Your task to perform on an android device: turn off smart reply in the gmail app Image 0: 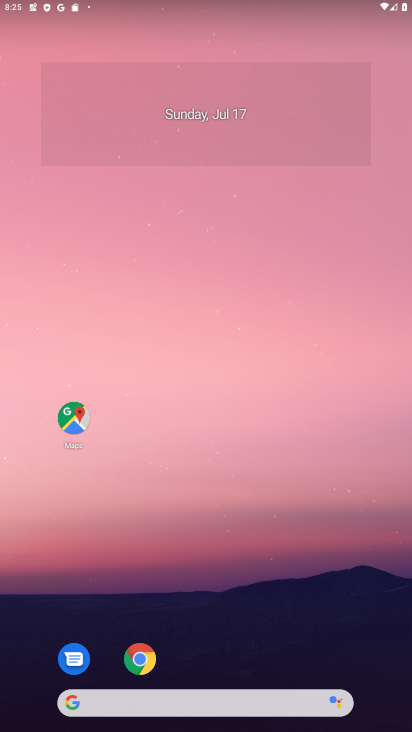
Step 0: drag from (225, 578) to (240, 163)
Your task to perform on an android device: turn off smart reply in the gmail app Image 1: 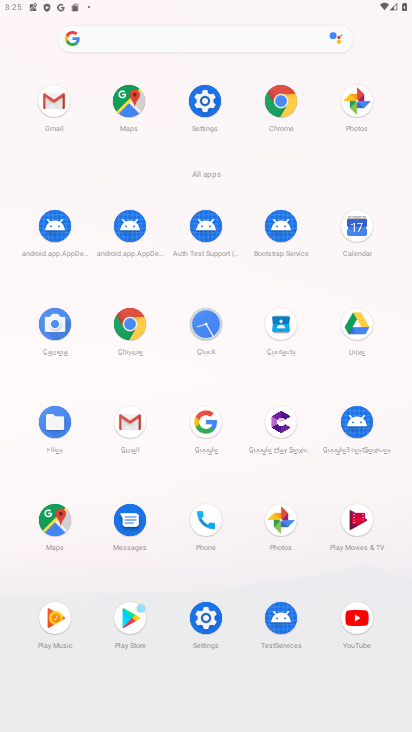
Step 1: click (281, 104)
Your task to perform on an android device: turn off smart reply in the gmail app Image 2: 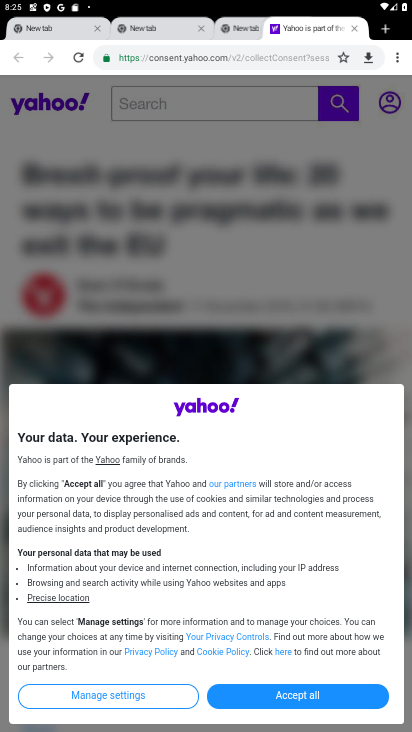
Step 2: press home button
Your task to perform on an android device: turn off smart reply in the gmail app Image 3: 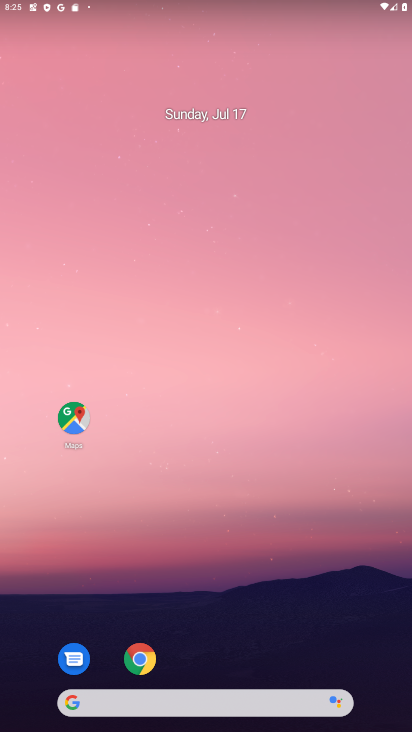
Step 3: drag from (231, 551) to (249, 169)
Your task to perform on an android device: turn off smart reply in the gmail app Image 4: 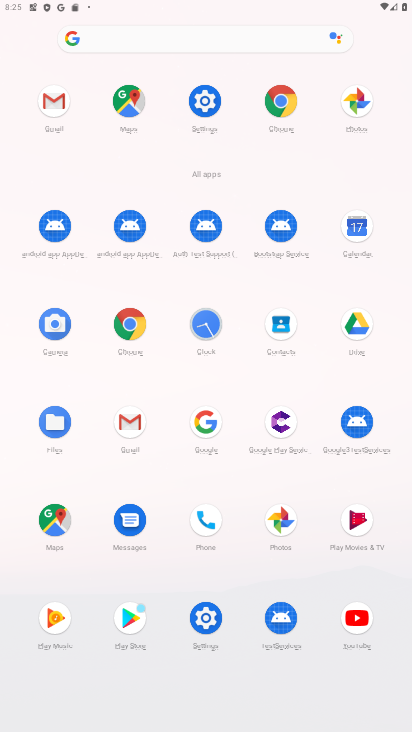
Step 4: click (128, 417)
Your task to perform on an android device: turn off smart reply in the gmail app Image 5: 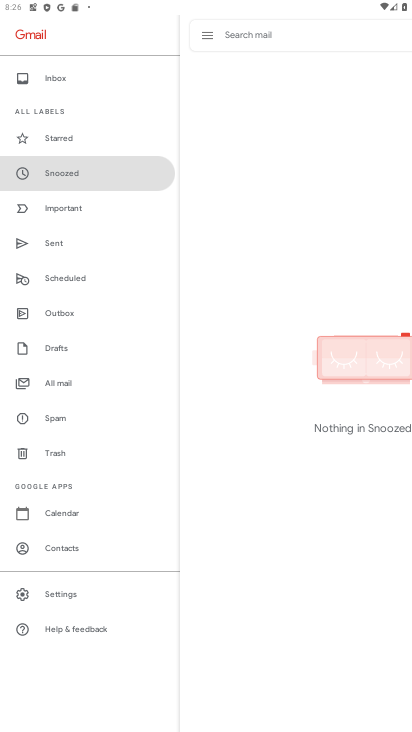
Step 5: click (60, 592)
Your task to perform on an android device: turn off smart reply in the gmail app Image 6: 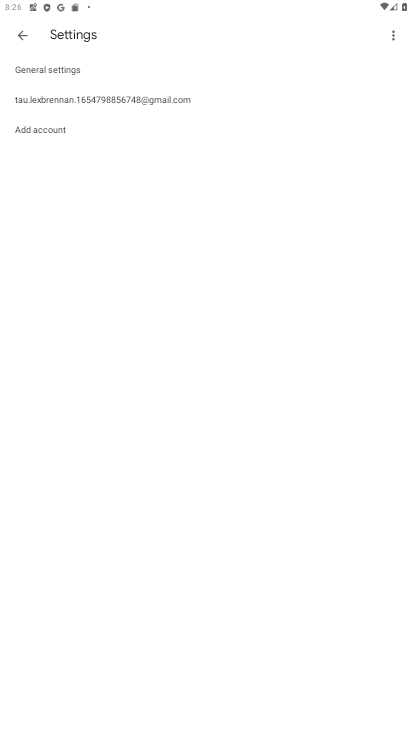
Step 6: click (63, 71)
Your task to perform on an android device: turn off smart reply in the gmail app Image 7: 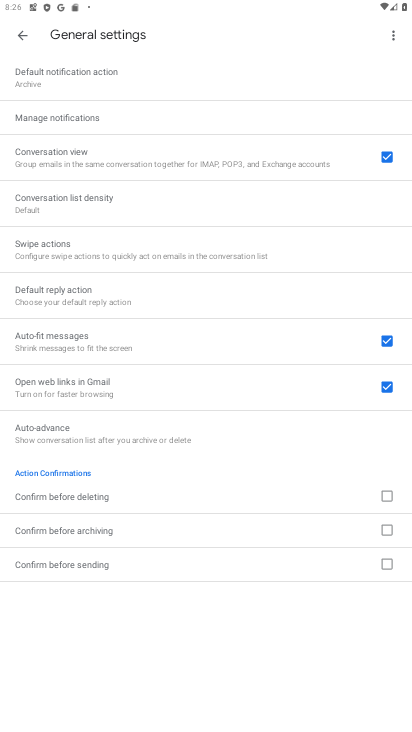
Step 7: task complete